Your task to perform on an android device: turn vacation reply on in the gmail app Image 0: 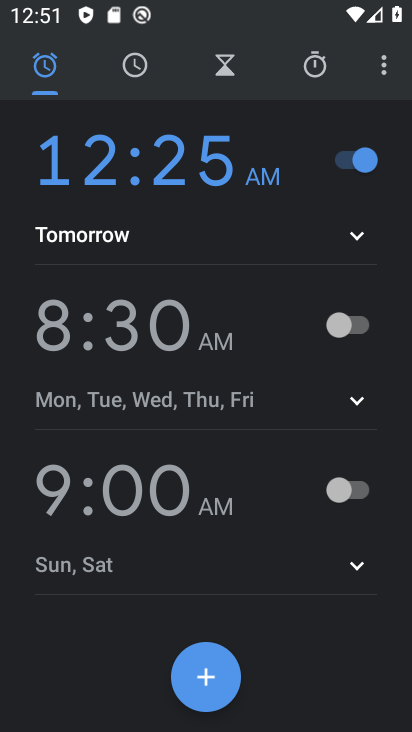
Step 0: press home button
Your task to perform on an android device: turn vacation reply on in the gmail app Image 1: 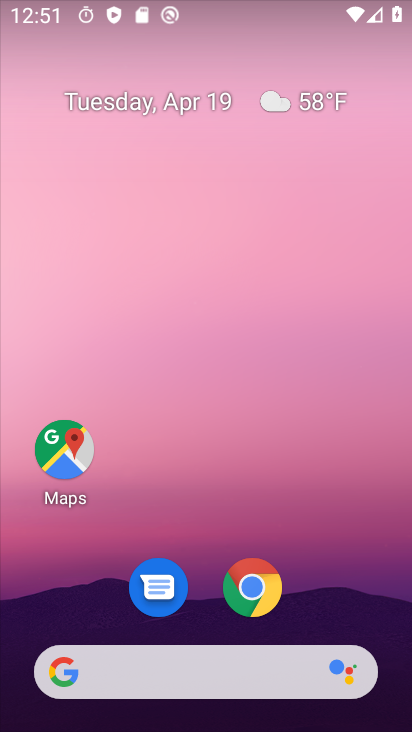
Step 1: drag from (331, 200) to (331, 150)
Your task to perform on an android device: turn vacation reply on in the gmail app Image 2: 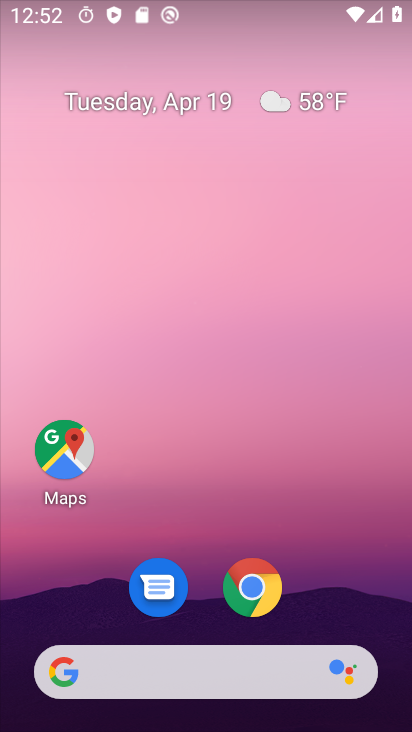
Step 2: drag from (363, 622) to (364, 208)
Your task to perform on an android device: turn vacation reply on in the gmail app Image 3: 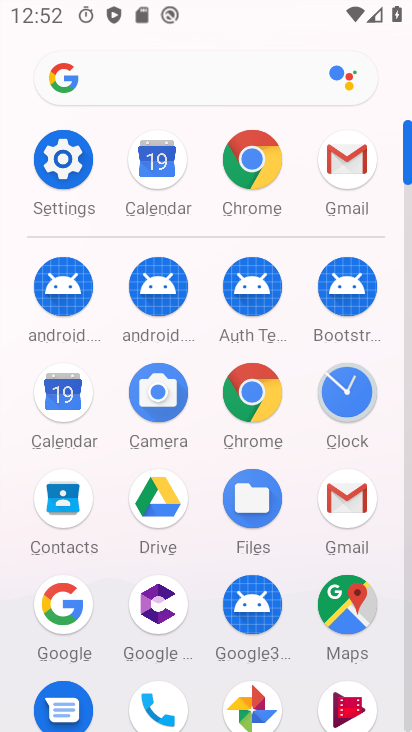
Step 3: click (345, 514)
Your task to perform on an android device: turn vacation reply on in the gmail app Image 4: 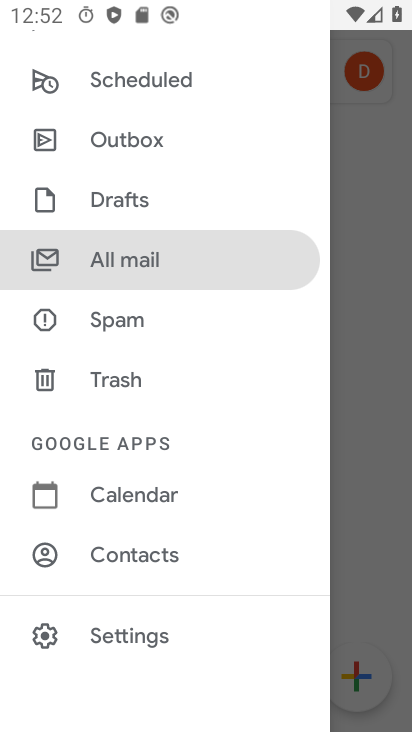
Step 4: click (153, 639)
Your task to perform on an android device: turn vacation reply on in the gmail app Image 5: 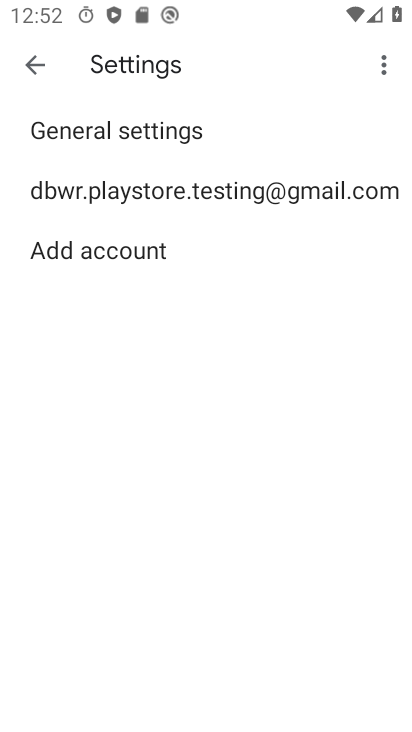
Step 5: click (194, 199)
Your task to perform on an android device: turn vacation reply on in the gmail app Image 6: 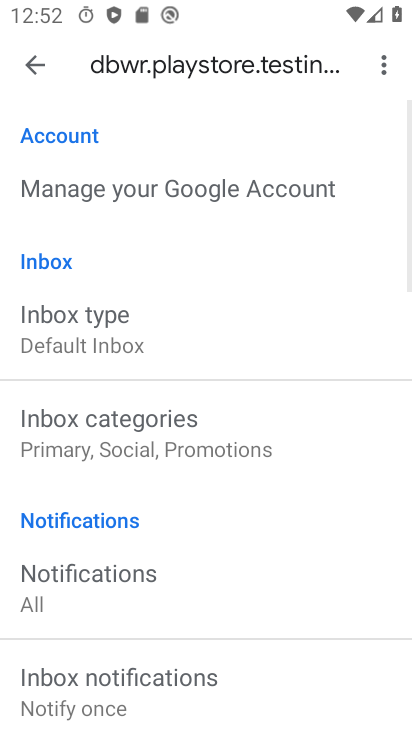
Step 6: drag from (280, 597) to (304, 317)
Your task to perform on an android device: turn vacation reply on in the gmail app Image 7: 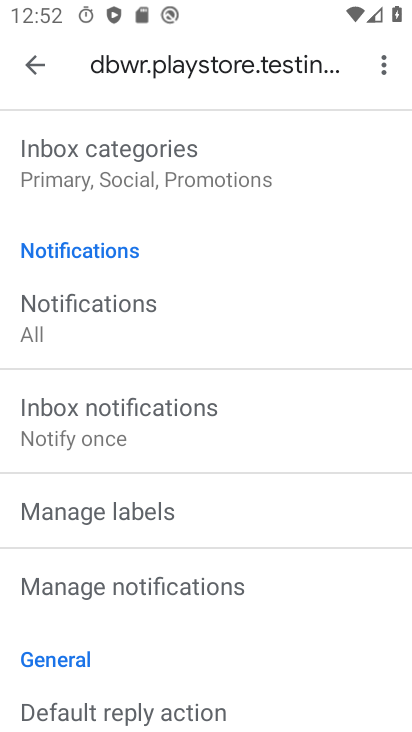
Step 7: drag from (289, 642) to (308, 350)
Your task to perform on an android device: turn vacation reply on in the gmail app Image 8: 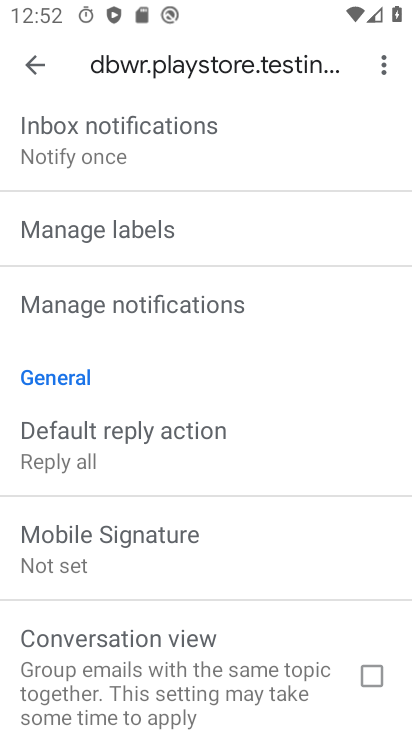
Step 8: drag from (271, 552) to (296, 240)
Your task to perform on an android device: turn vacation reply on in the gmail app Image 9: 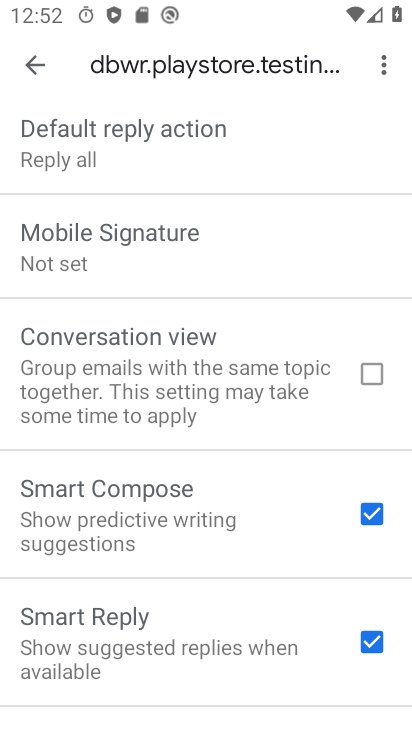
Step 9: drag from (263, 587) to (324, 261)
Your task to perform on an android device: turn vacation reply on in the gmail app Image 10: 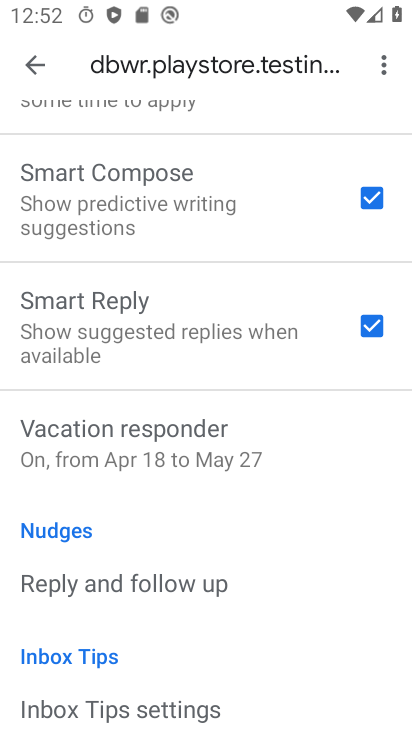
Step 10: click (170, 422)
Your task to perform on an android device: turn vacation reply on in the gmail app Image 11: 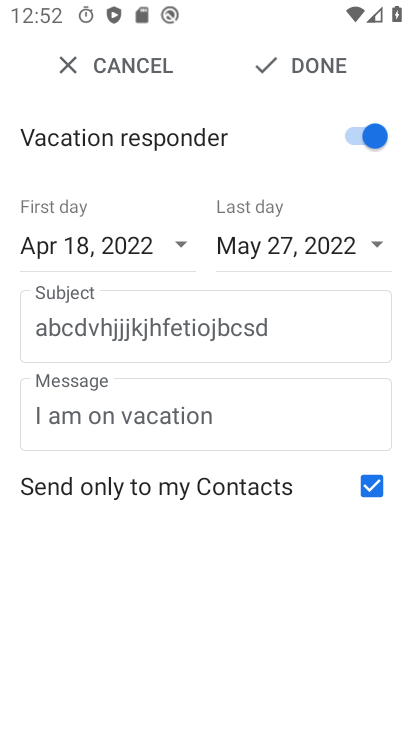
Step 11: task complete